Your task to perform on an android device: change notifications settings Image 0: 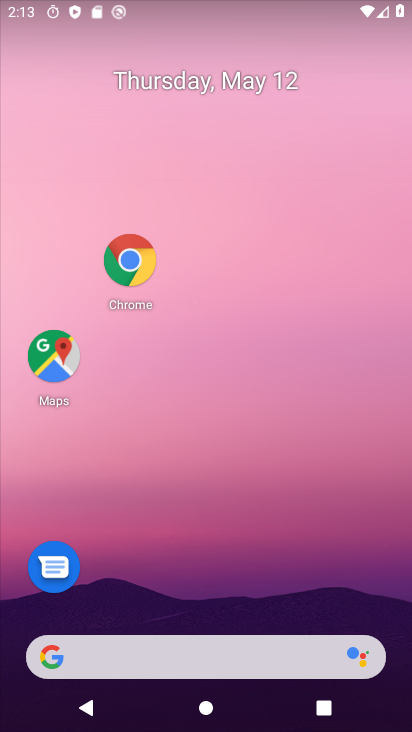
Step 0: drag from (218, 641) to (208, 284)
Your task to perform on an android device: change notifications settings Image 1: 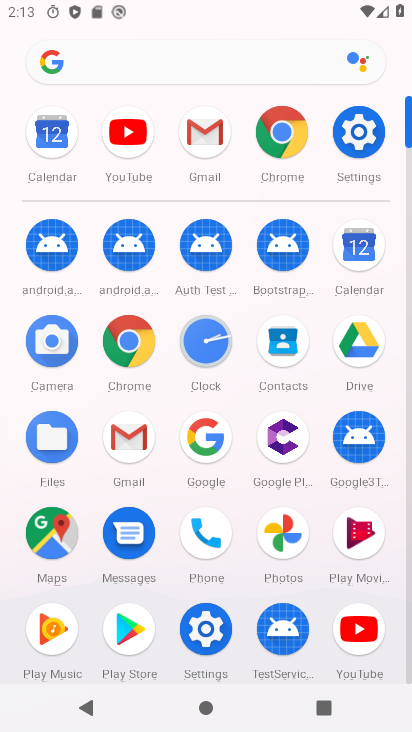
Step 1: click (206, 634)
Your task to perform on an android device: change notifications settings Image 2: 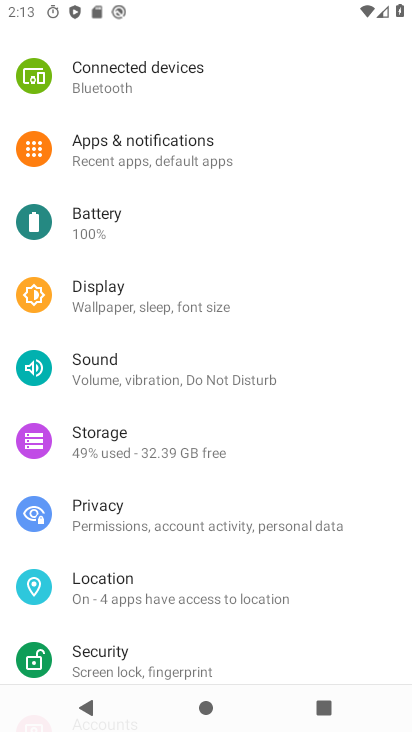
Step 2: click (126, 158)
Your task to perform on an android device: change notifications settings Image 3: 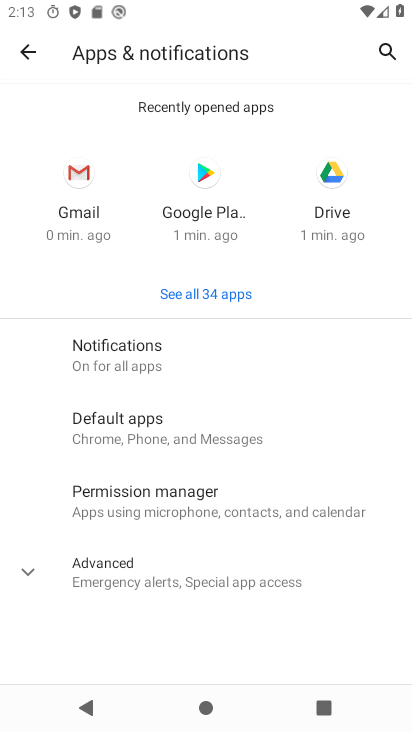
Step 3: click (145, 580)
Your task to perform on an android device: change notifications settings Image 4: 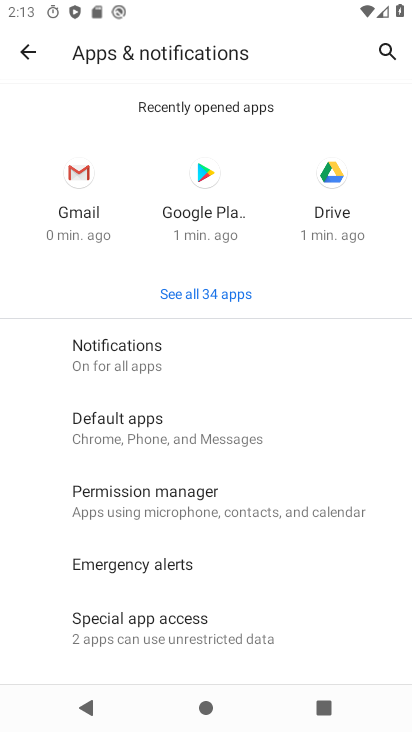
Step 4: task complete